Your task to perform on an android device: allow notifications from all sites in the chrome app Image 0: 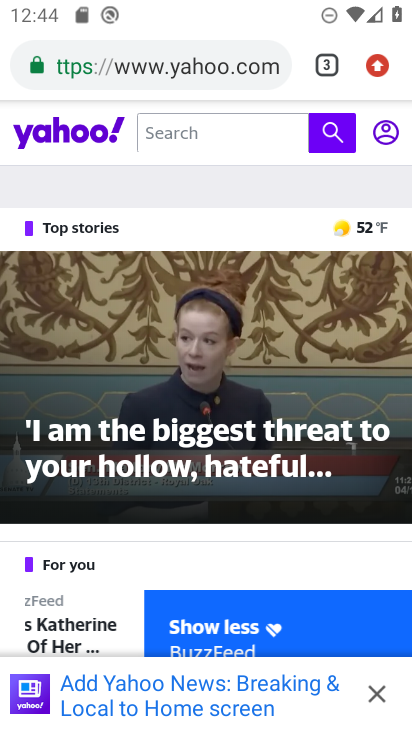
Step 0: click (385, 72)
Your task to perform on an android device: allow notifications from all sites in the chrome app Image 1: 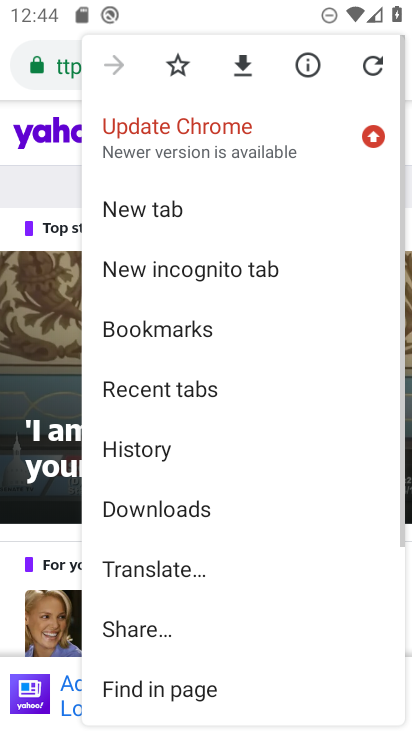
Step 1: drag from (185, 521) to (263, 213)
Your task to perform on an android device: allow notifications from all sites in the chrome app Image 2: 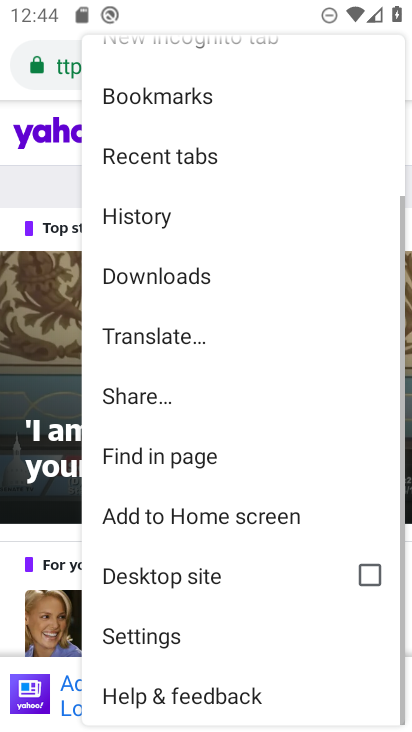
Step 2: click (155, 637)
Your task to perform on an android device: allow notifications from all sites in the chrome app Image 3: 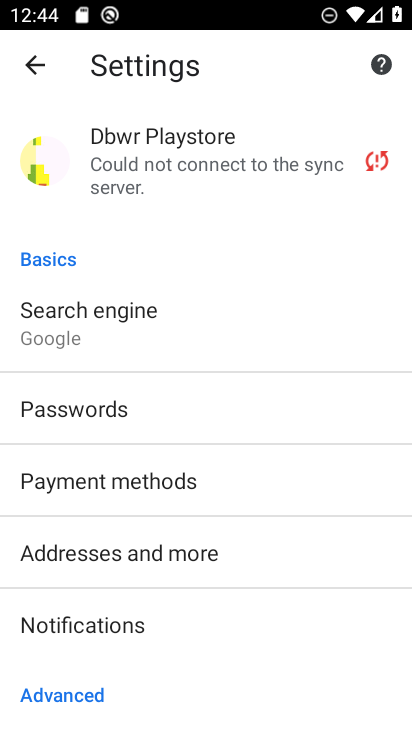
Step 3: drag from (111, 598) to (131, 470)
Your task to perform on an android device: allow notifications from all sites in the chrome app Image 4: 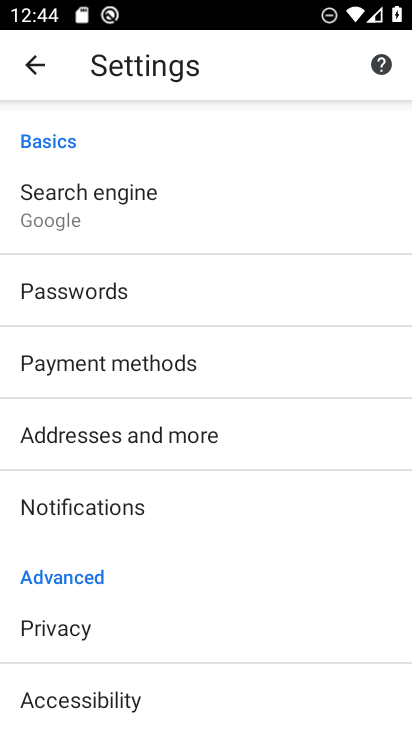
Step 4: click (114, 515)
Your task to perform on an android device: allow notifications from all sites in the chrome app Image 5: 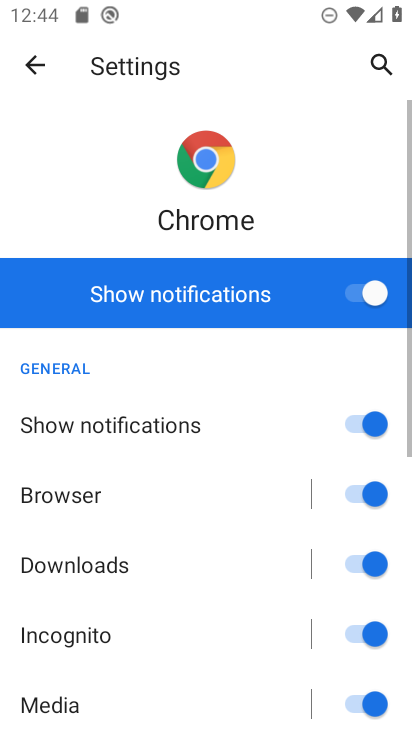
Step 5: task complete